Your task to perform on an android device: What is the recent news? Image 0: 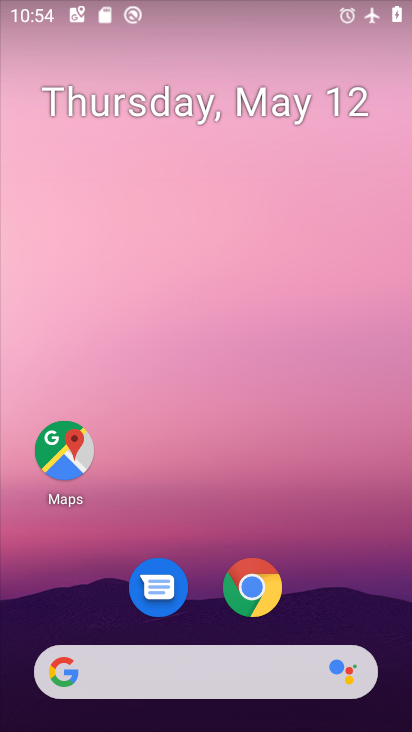
Step 0: drag from (362, 607) to (219, 56)
Your task to perform on an android device: What is the recent news? Image 1: 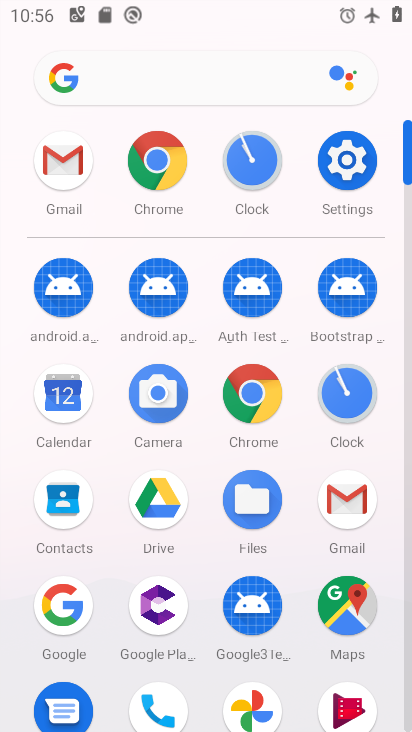
Step 1: click (267, 397)
Your task to perform on an android device: What is the recent news? Image 2: 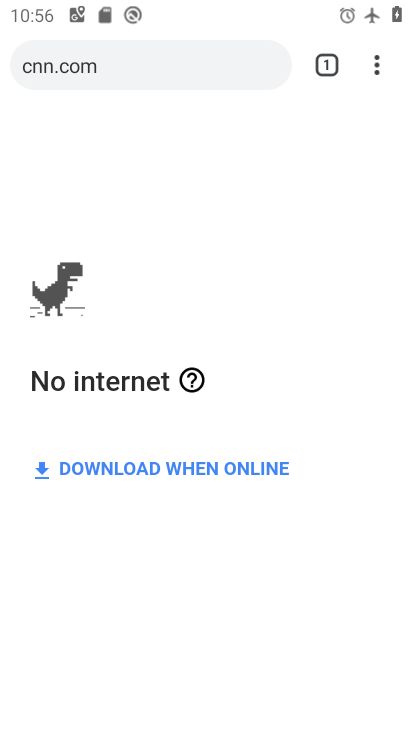
Step 2: press back button
Your task to perform on an android device: What is the recent news? Image 3: 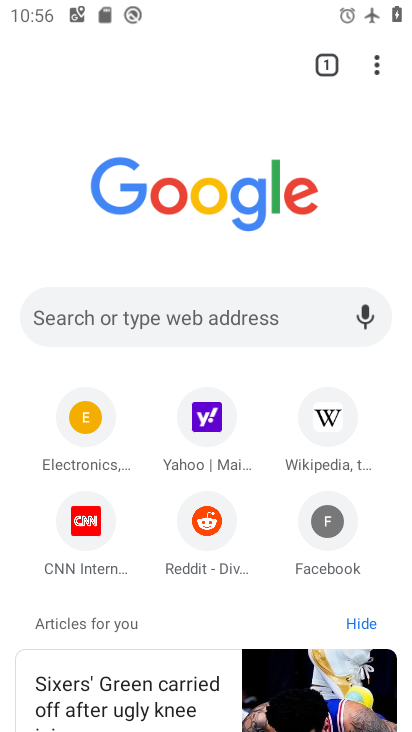
Step 3: click (103, 685)
Your task to perform on an android device: What is the recent news? Image 4: 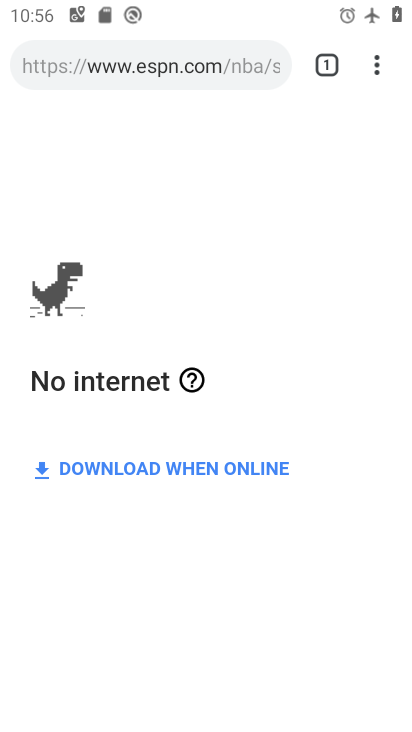
Step 4: task complete